Your task to perform on an android device: open app "Messenger Lite" (install if not already installed) and go to login screen Image 0: 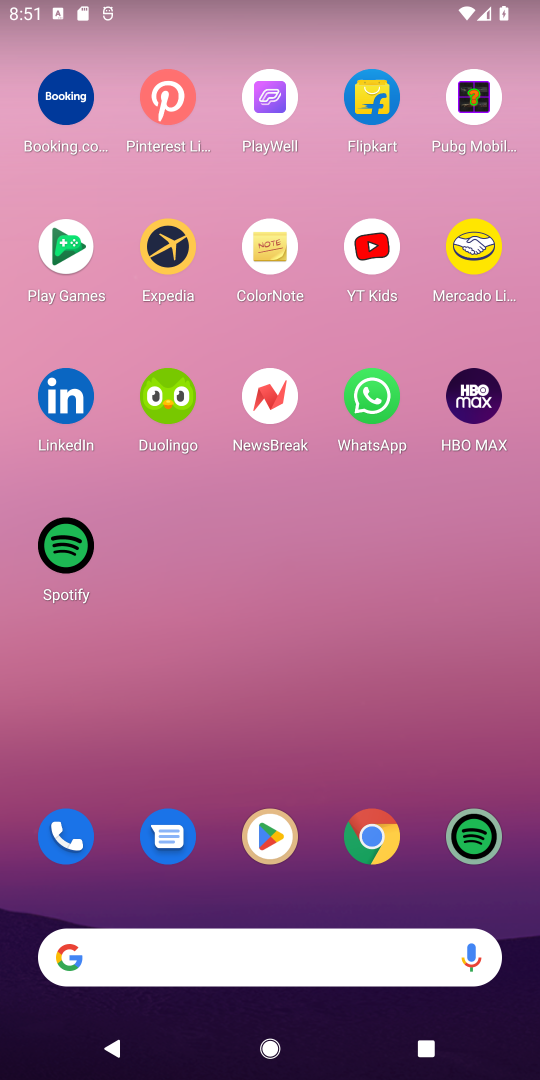
Step 0: press home button
Your task to perform on an android device: open app "Messenger Lite" (install if not already installed) and go to login screen Image 1: 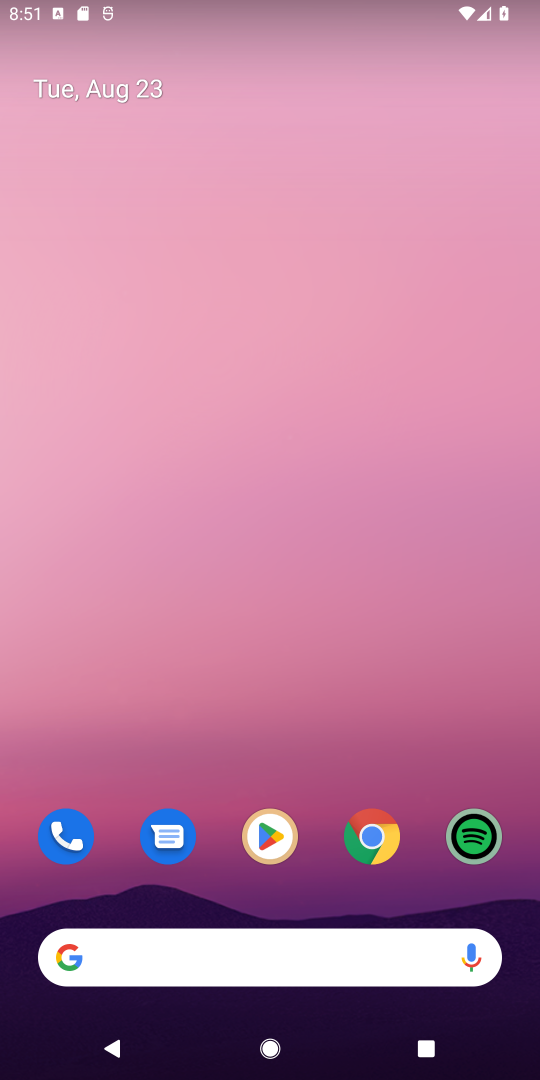
Step 1: click (256, 837)
Your task to perform on an android device: open app "Messenger Lite" (install if not already installed) and go to login screen Image 2: 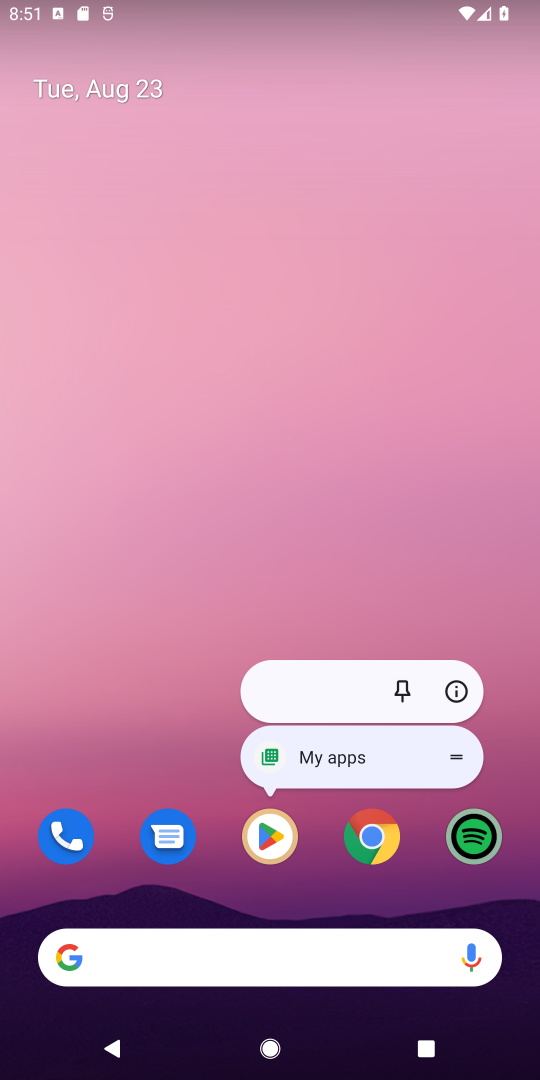
Step 2: click (263, 835)
Your task to perform on an android device: open app "Messenger Lite" (install if not already installed) and go to login screen Image 3: 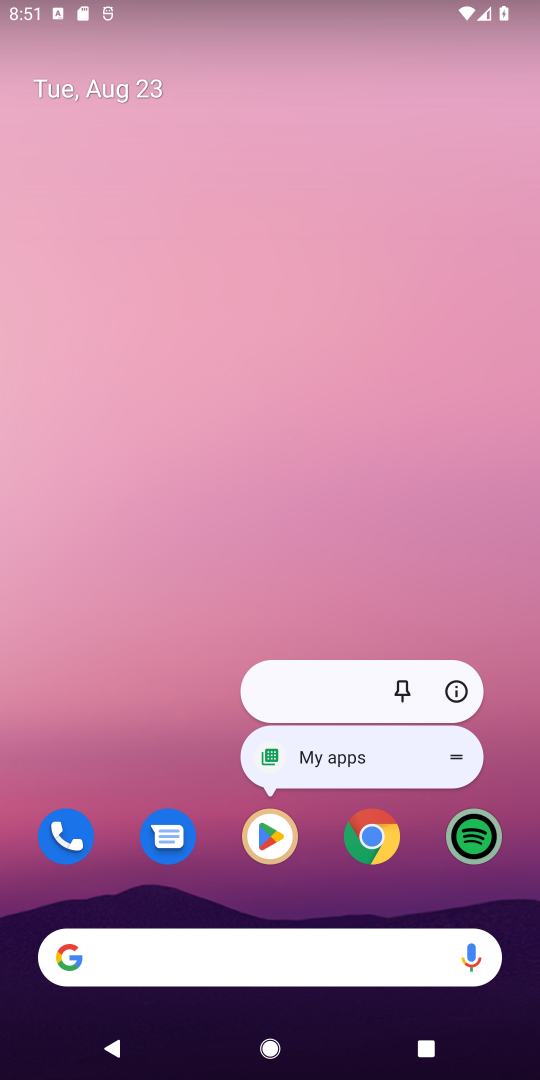
Step 3: click (268, 834)
Your task to perform on an android device: open app "Messenger Lite" (install if not already installed) and go to login screen Image 4: 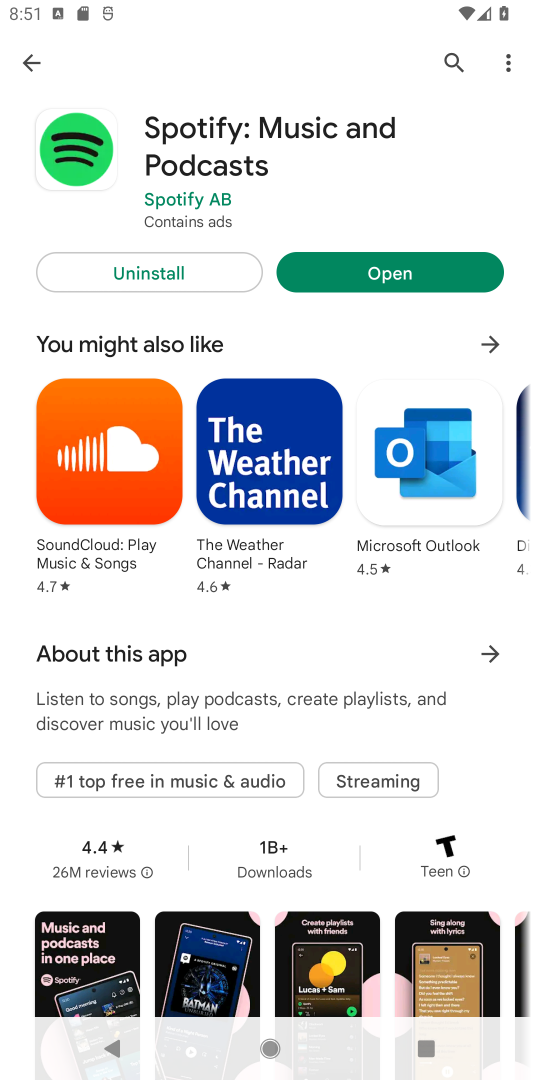
Step 4: click (448, 56)
Your task to perform on an android device: open app "Messenger Lite" (install if not already installed) and go to login screen Image 5: 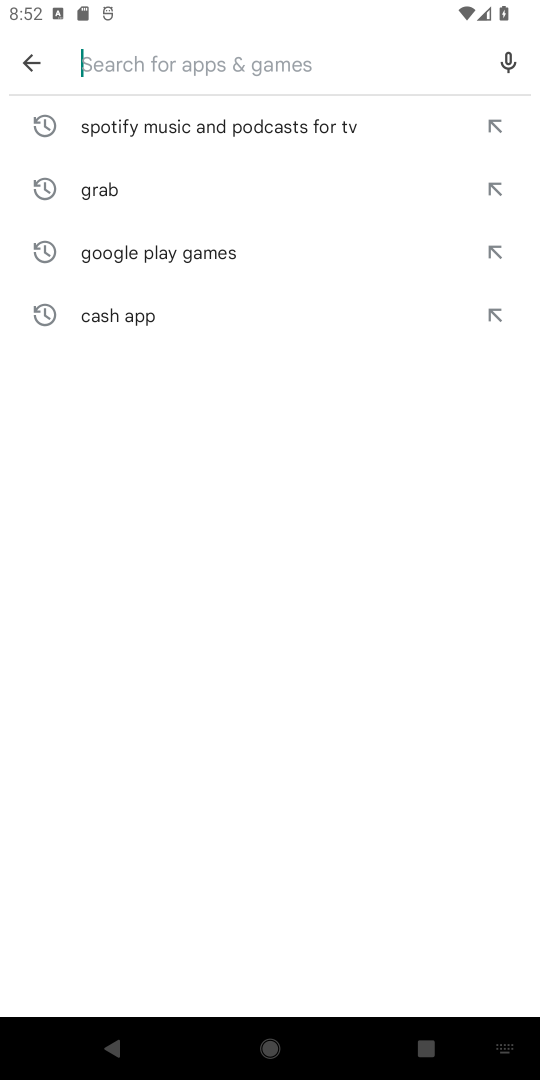
Step 5: type "Messenger Lite"
Your task to perform on an android device: open app "Messenger Lite" (install if not already installed) and go to login screen Image 6: 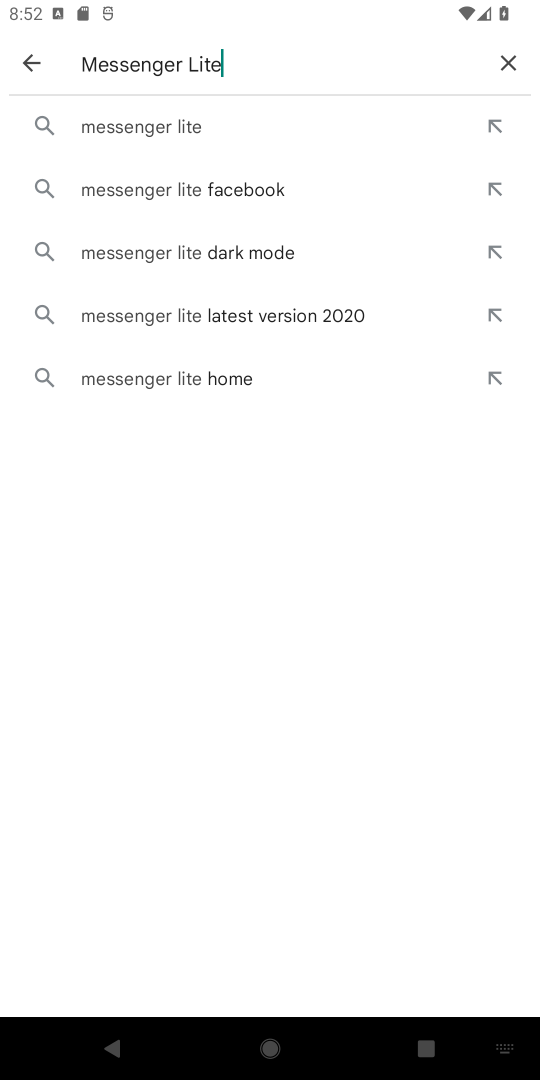
Step 6: click (192, 125)
Your task to perform on an android device: open app "Messenger Lite" (install if not already installed) and go to login screen Image 7: 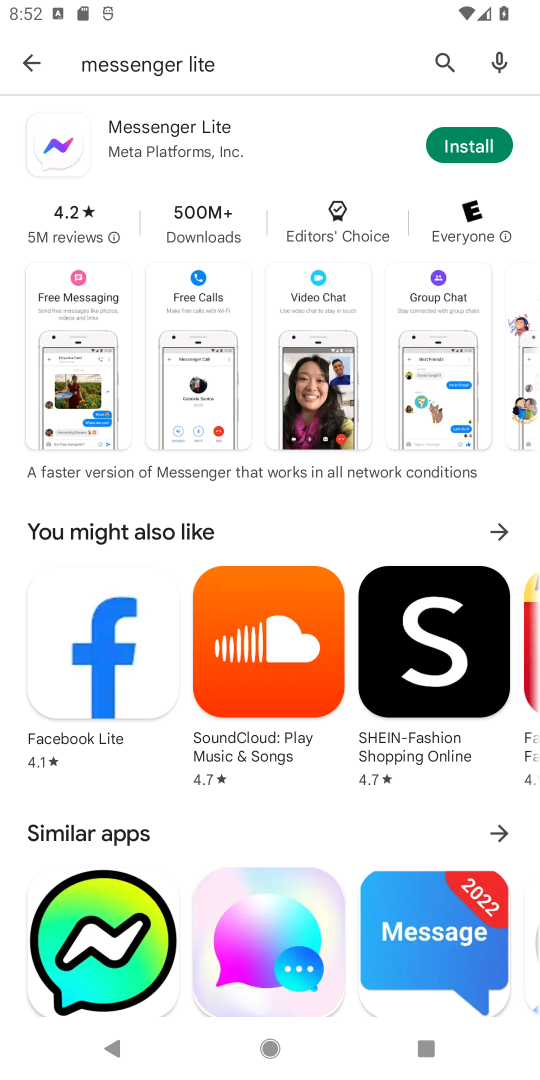
Step 7: click (478, 139)
Your task to perform on an android device: open app "Messenger Lite" (install if not already installed) and go to login screen Image 8: 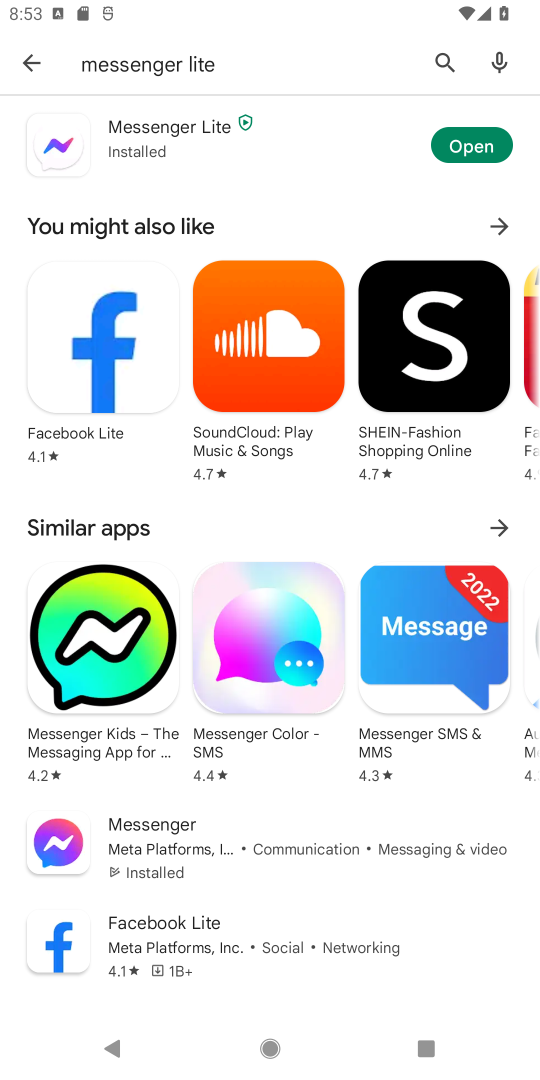
Step 8: click (469, 144)
Your task to perform on an android device: open app "Messenger Lite" (install if not already installed) and go to login screen Image 9: 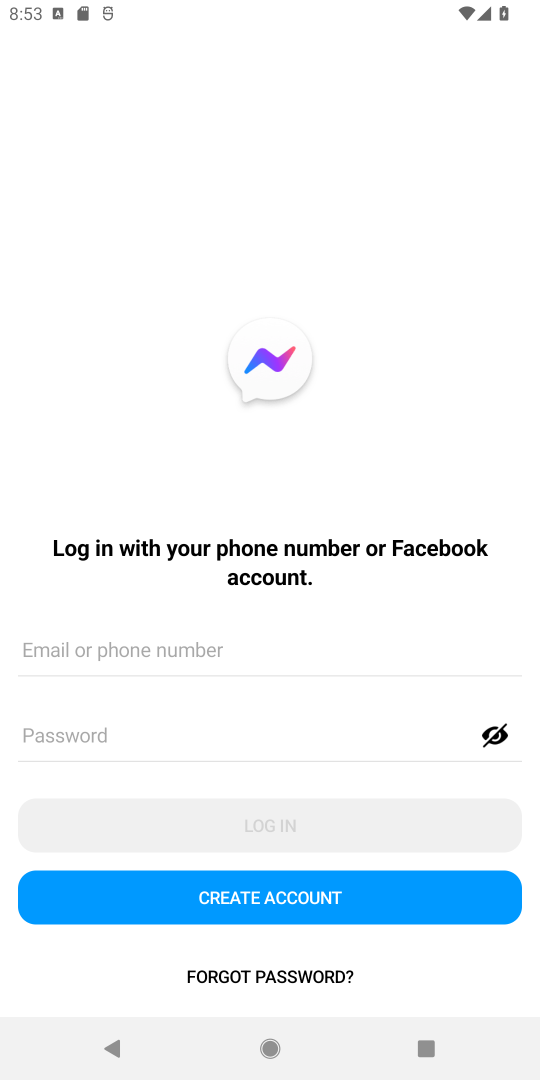
Step 9: task complete